Your task to perform on an android device: Open the calendar and show me this week's events? Image 0: 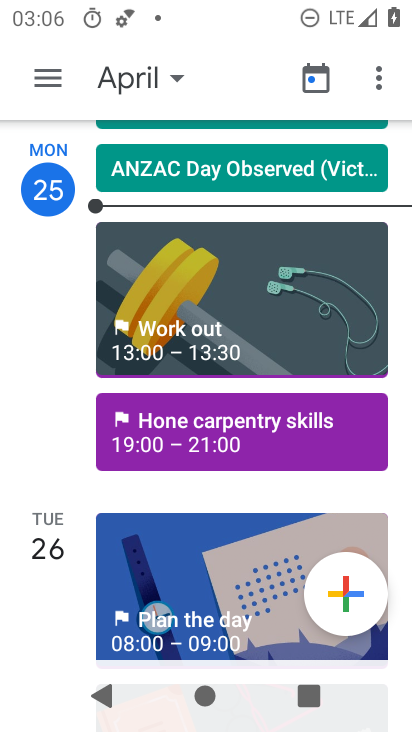
Step 0: click (167, 74)
Your task to perform on an android device: Open the calendar and show me this week's events? Image 1: 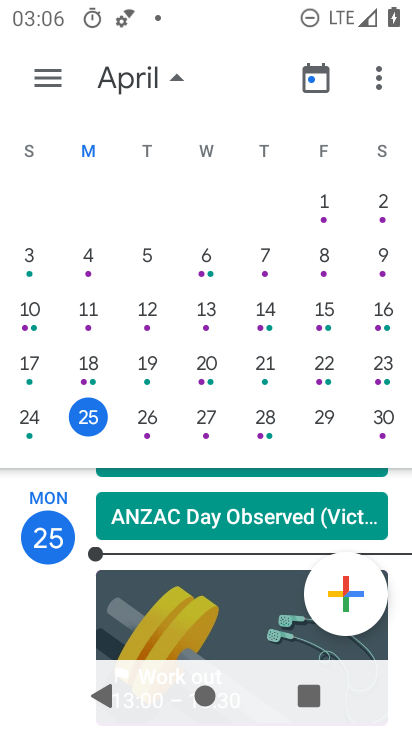
Step 1: click (327, 419)
Your task to perform on an android device: Open the calendar and show me this week's events? Image 2: 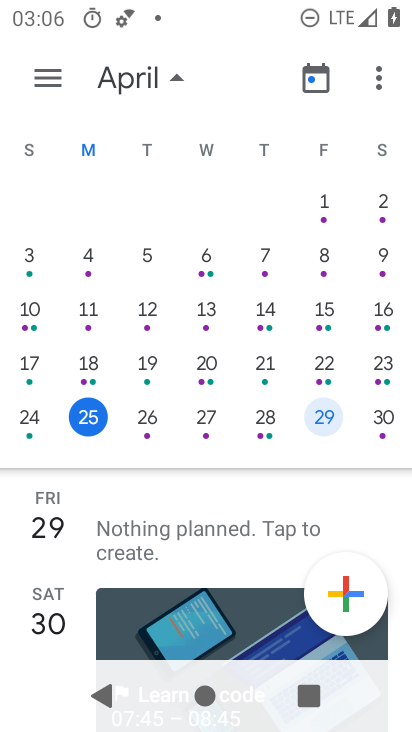
Step 2: task complete